Your task to perform on an android device: Search for Italian restaurants on Maps Image 0: 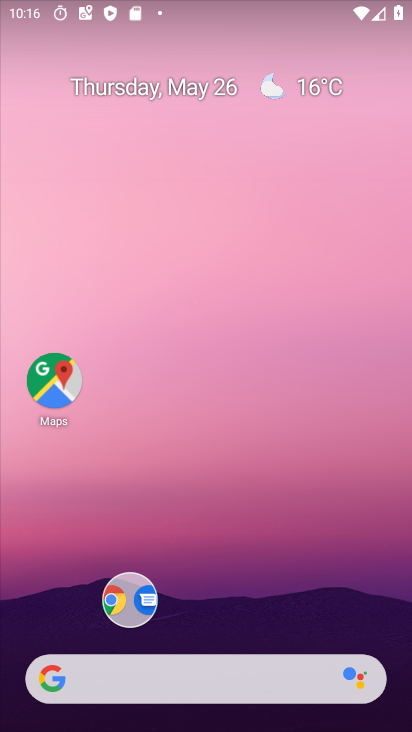
Step 0: drag from (135, 608) to (191, 542)
Your task to perform on an android device: Search for Italian restaurants on Maps Image 1: 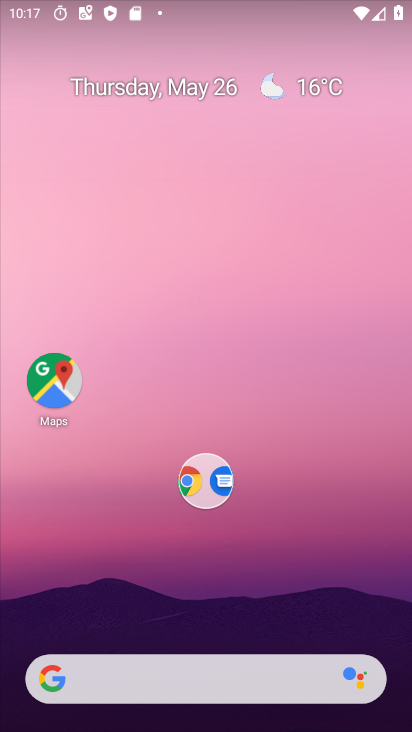
Step 1: click (61, 366)
Your task to perform on an android device: Search for Italian restaurants on Maps Image 2: 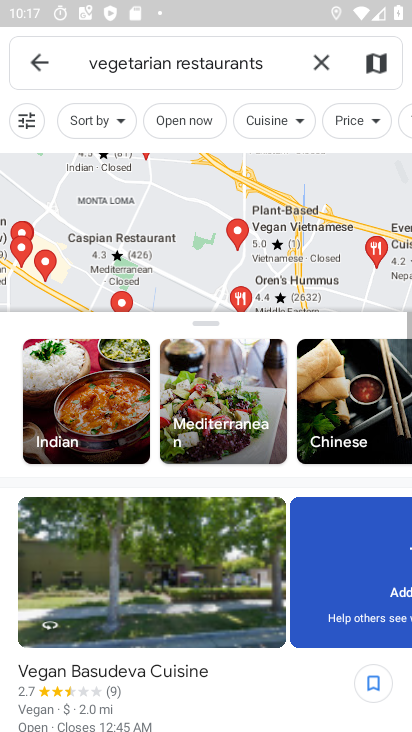
Step 2: click (327, 59)
Your task to perform on an android device: Search for Italian restaurants on Maps Image 3: 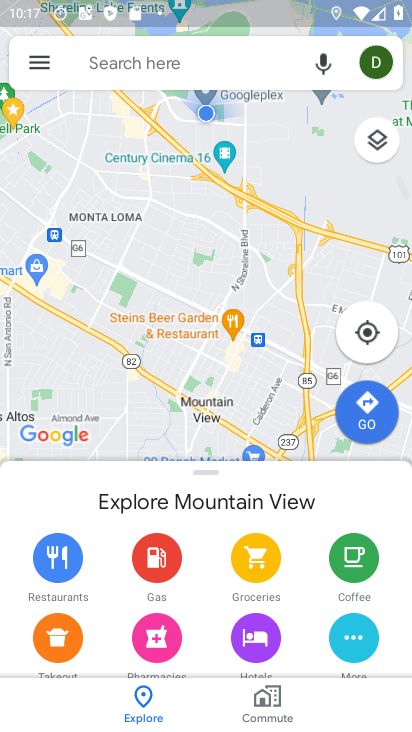
Step 3: click (181, 47)
Your task to perform on an android device: Search for Italian restaurants on Maps Image 4: 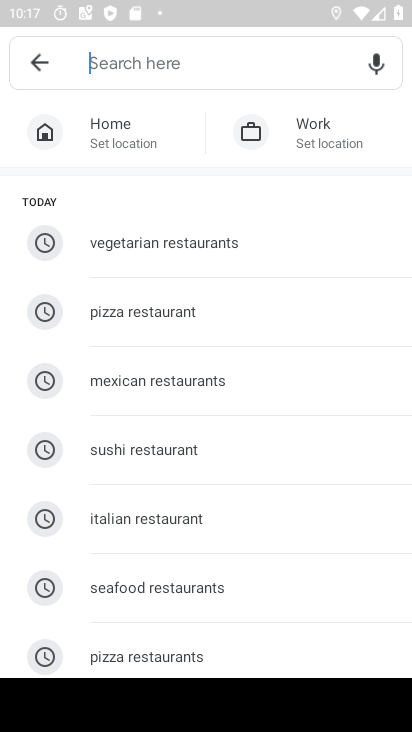
Step 4: click (121, 527)
Your task to perform on an android device: Search for Italian restaurants on Maps Image 5: 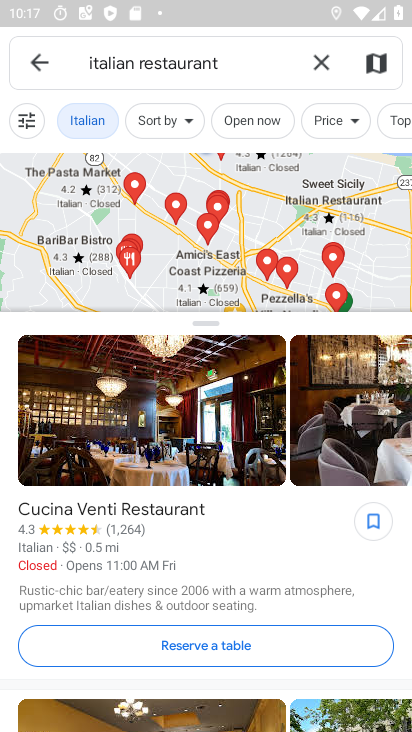
Step 5: task complete